Your task to perform on an android device: Open display settings Image 0: 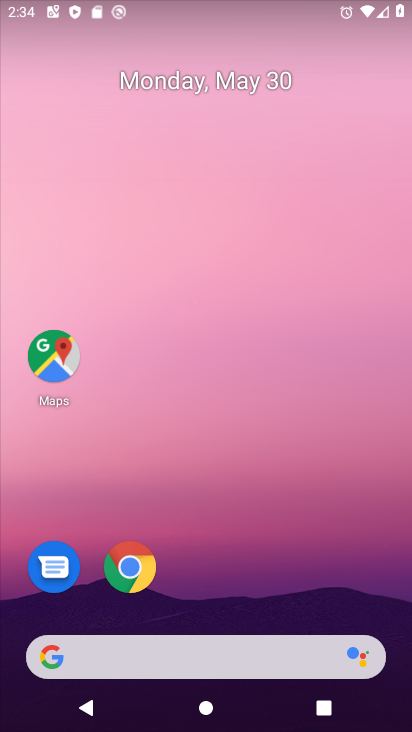
Step 0: drag from (206, 613) to (302, 195)
Your task to perform on an android device: Open display settings Image 1: 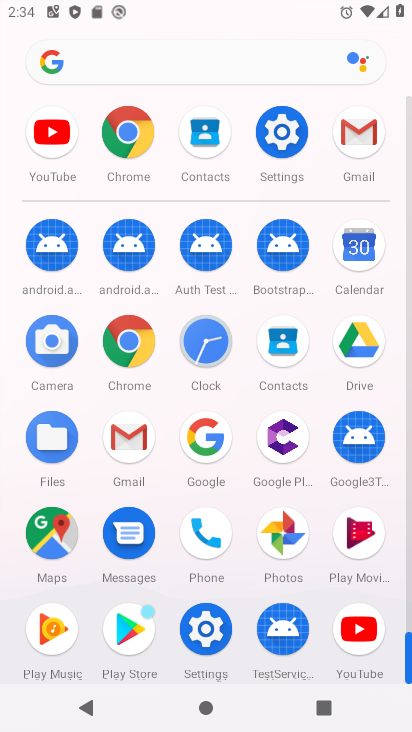
Step 1: click (208, 632)
Your task to perform on an android device: Open display settings Image 2: 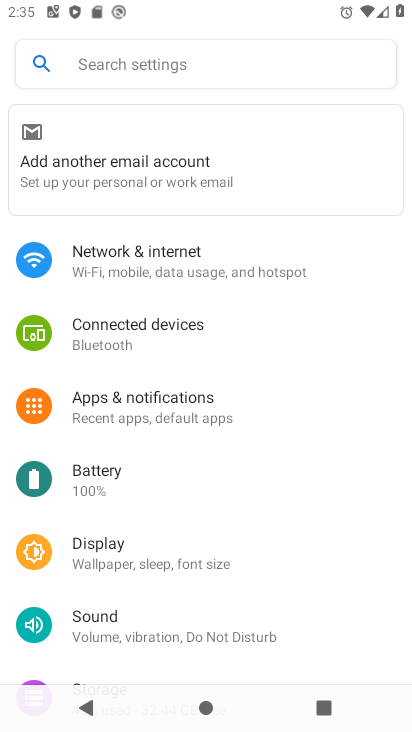
Step 2: click (147, 562)
Your task to perform on an android device: Open display settings Image 3: 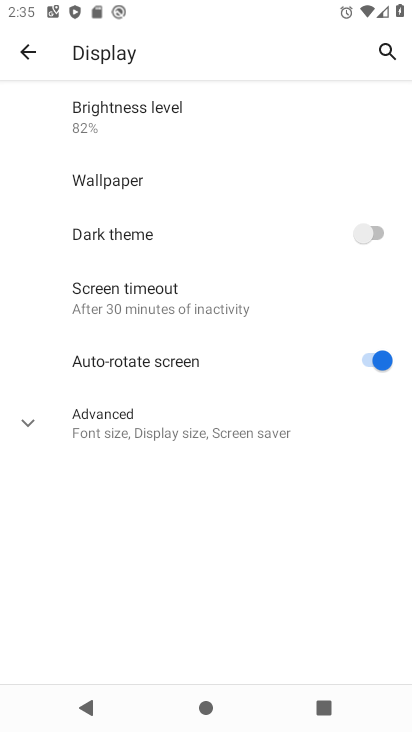
Step 3: task complete